Your task to perform on an android device: snooze an email in the gmail app Image 0: 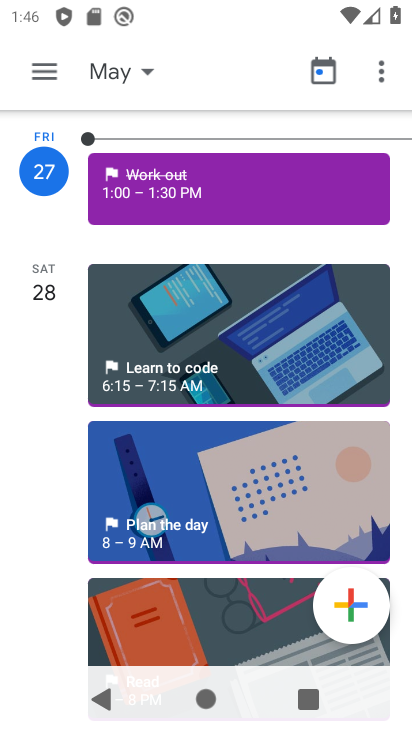
Step 0: drag from (203, 594) to (222, 285)
Your task to perform on an android device: snooze an email in the gmail app Image 1: 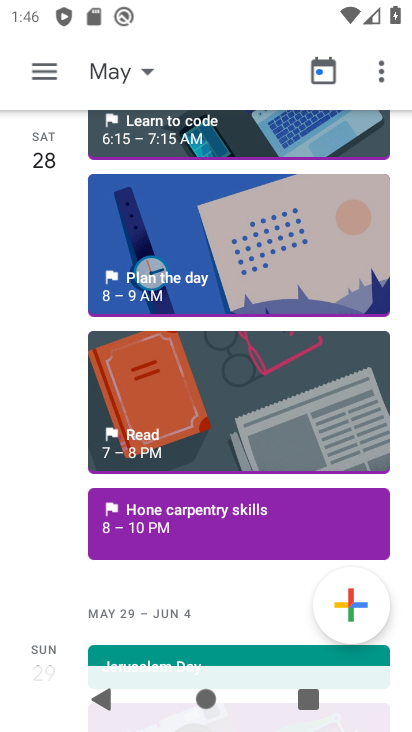
Step 1: press home button
Your task to perform on an android device: snooze an email in the gmail app Image 2: 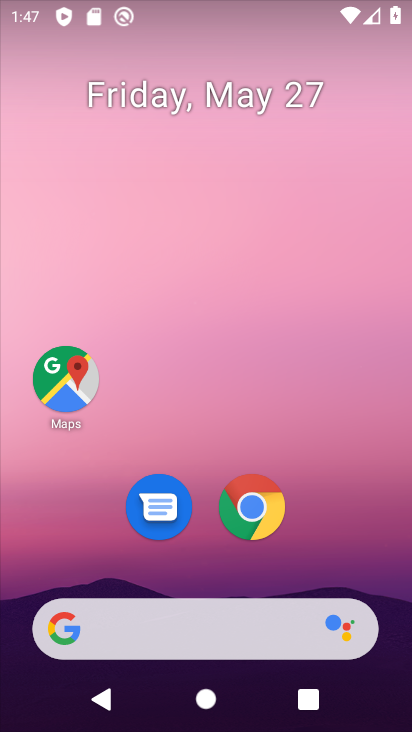
Step 2: drag from (201, 559) to (198, 172)
Your task to perform on an android device: snooze an email in the gmail app Image 3: 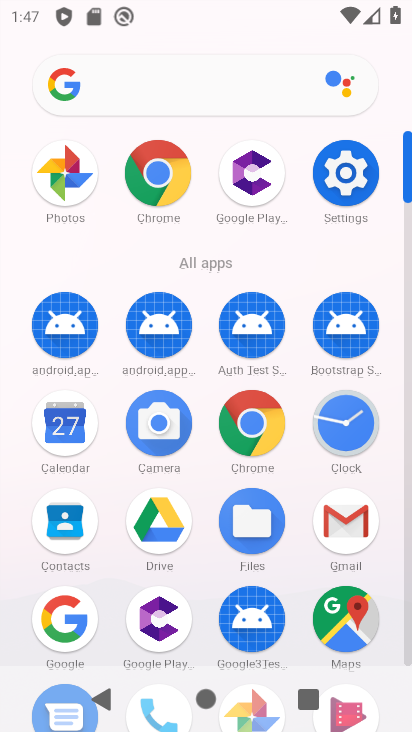
Step 3: click (341, 516)
Your task to perform on an android device: snooze an email in the gmail app Image 4: 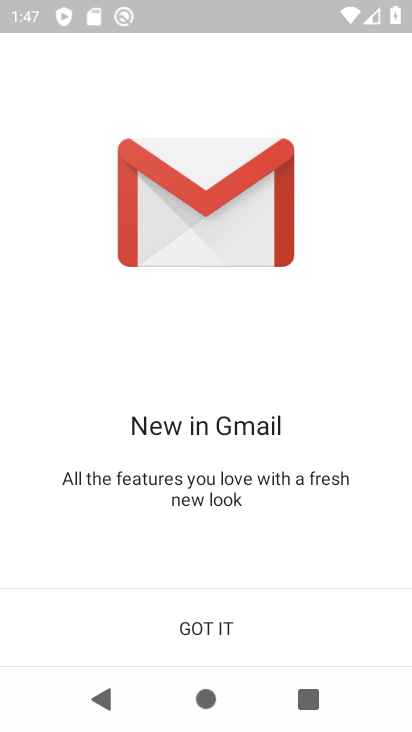
Step 4: click (196, 610)
Your task to perform on an android device: snooze an email in the gmail app Image 5: 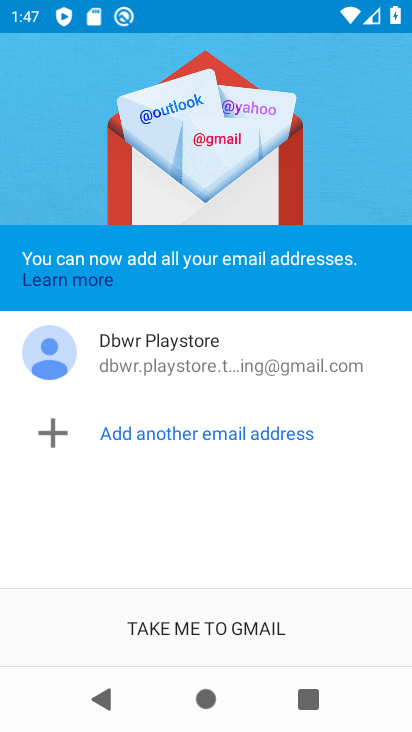
Step 5: drag from (233, 571) to (232, 234)
Your task to perform on an android device: snooze an email in the gmail app Image 6: 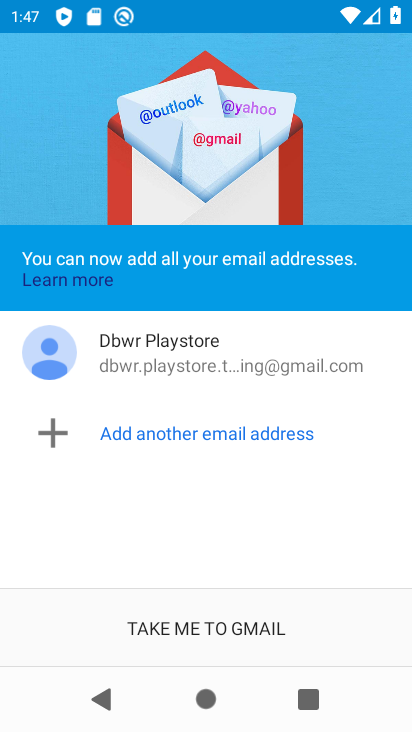
Step 6: click (181, 613)
Your task to perform on an android device: snooze an email in the gmail app Image 7: 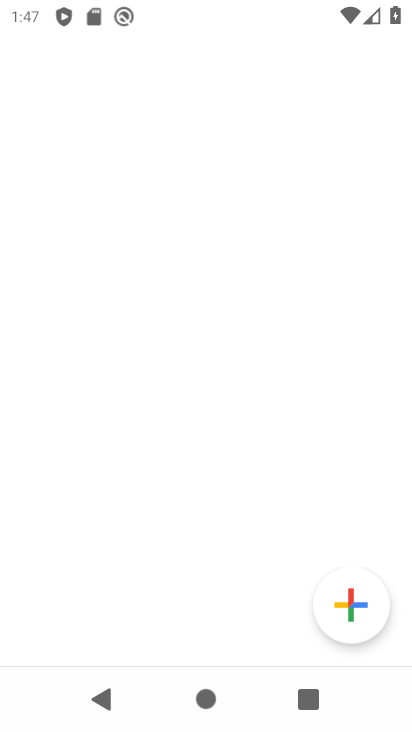
Step 7: drag from (186, 602) to (243, 219)
Your task to perform on an android device: snooze an email in the gmail app Image 8: 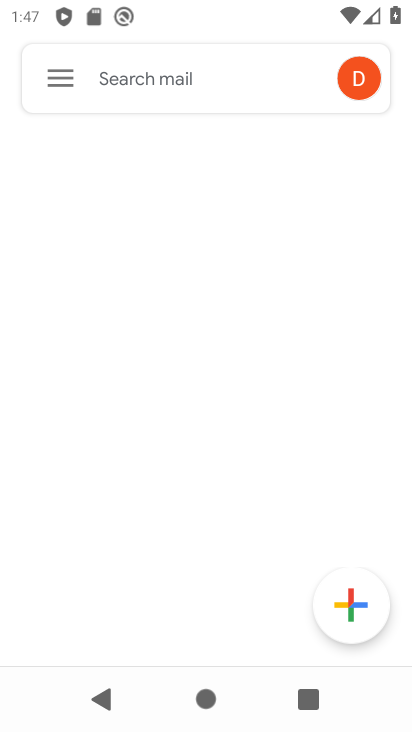
Step 8: click (63, 74)
Your task to perform on an android device: snooze an email in the gmail app Image 9: 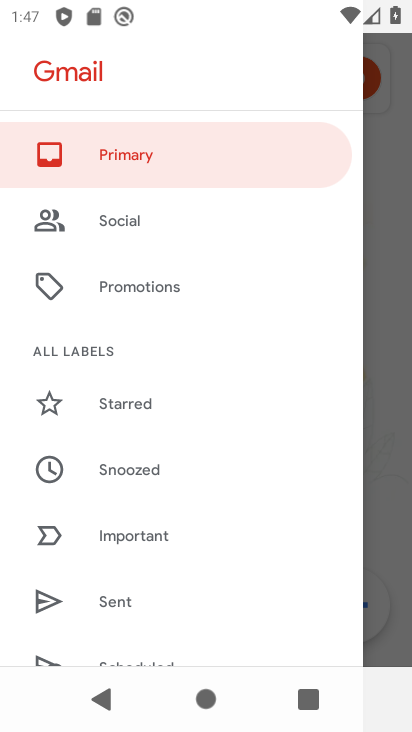
Step 9: click (137, 462)
Your task to perform on an android device: snooze an email in the gmail app Image 10: 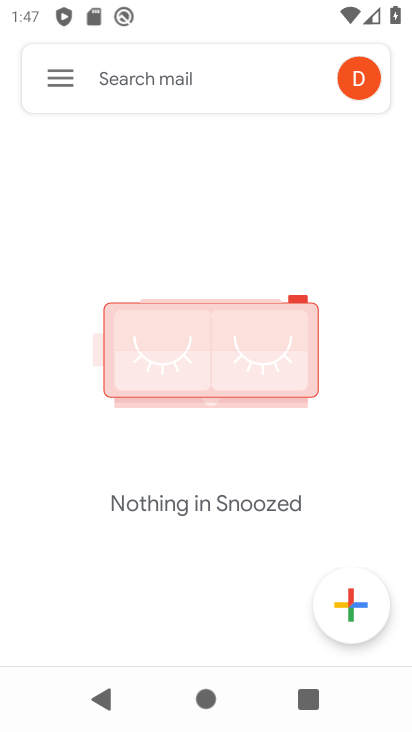
Step 10: task complete